Your task to perform on an android device: What is the recent news? Image 0: 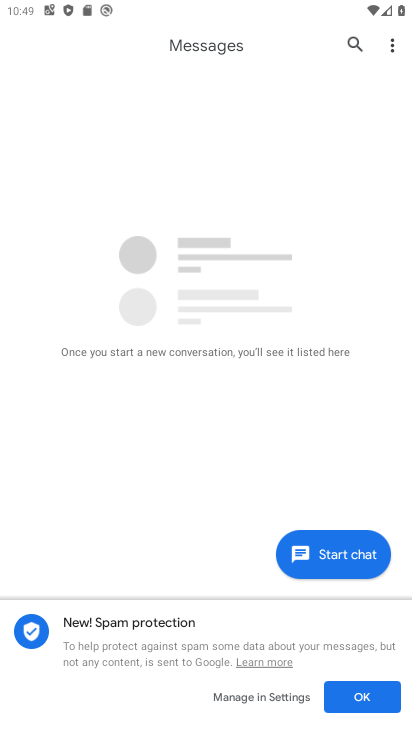
Step 0: press home button
Your task to perform on an android device: What is the recent news? Image 1: 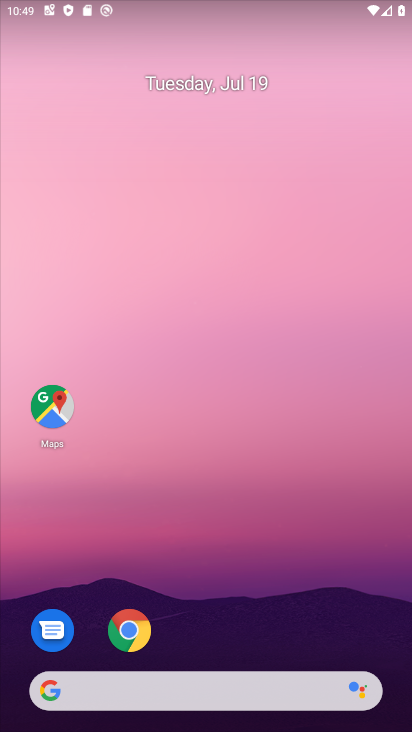
Step 1: click (108, 625)
Your task to perform on an android device: What is the recent news? Image 2: 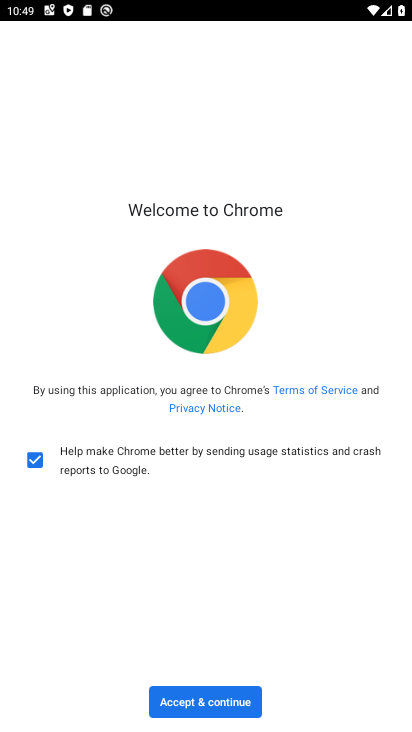
Step 2: click (211, 720)
Your task to perform on an android device: What is the recent news? Image 3: 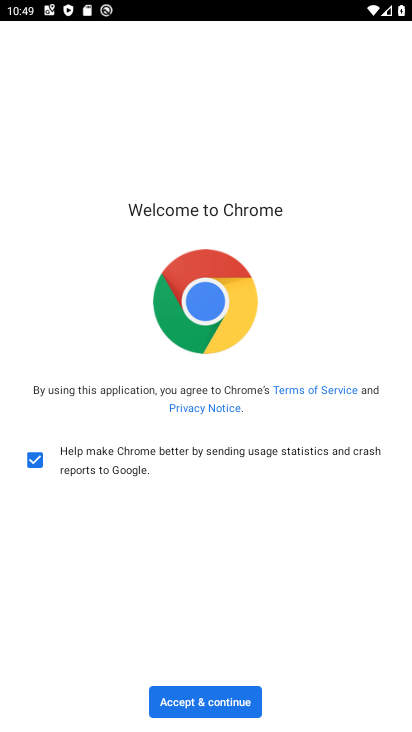
Step 3: click (203, 700)
Your task to perform on an android device: What is the recent news? Image 4: 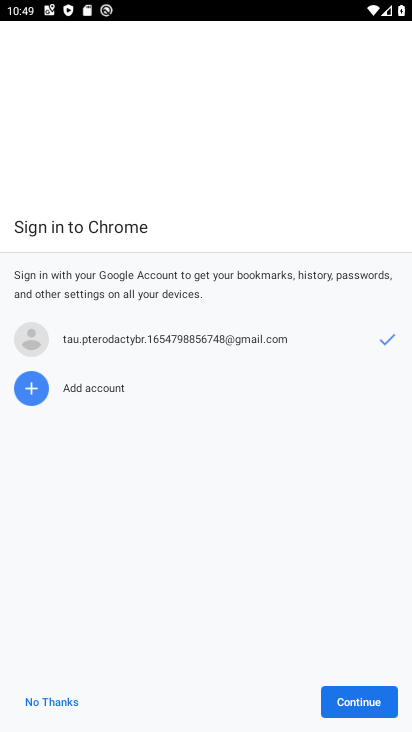
Step 4: click (355, 696)
Your task to perform on an android device: What is the recent news? Image 5: 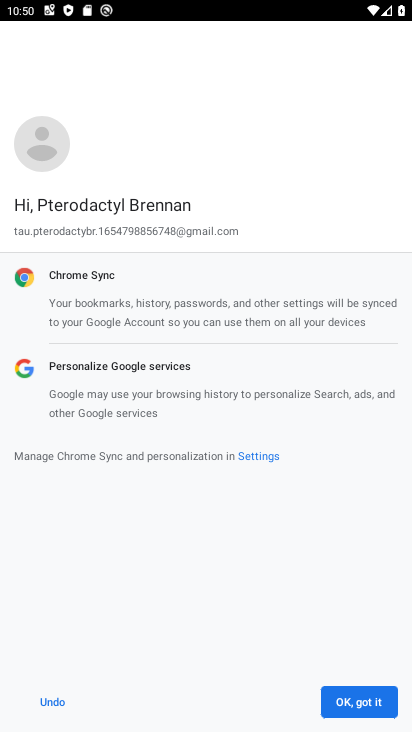
Step 5: click (355, 696)
Your task to perform on an android device: What is the recent news? Image 6: 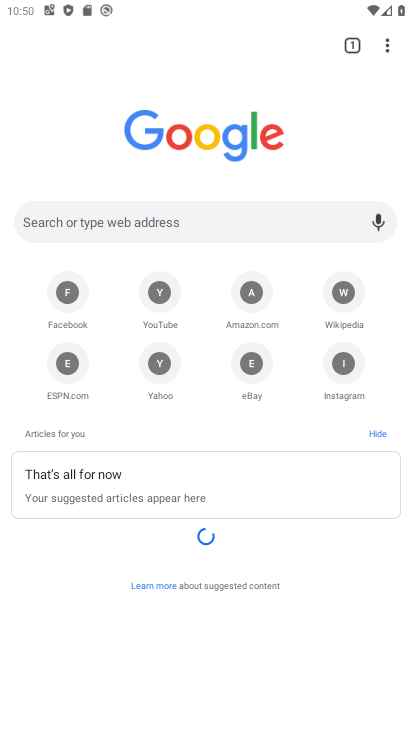
Step 6: click (186, 218)
Your task to perform on an android device: What is the recent news? Image 7: 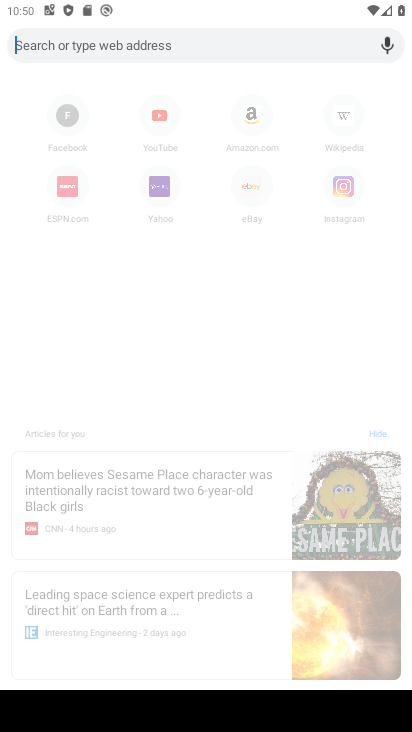
Step 7: type "recent news"
Your task to perform on an android device: What is the recent news? Image 8: 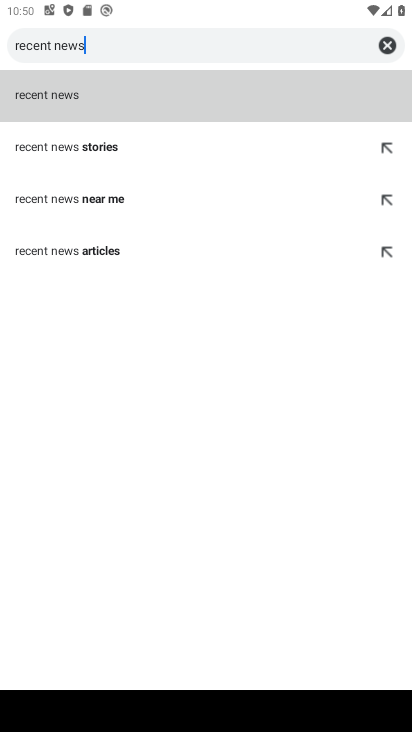
Step 8: click (146, 103)
Your task to perform on an android device: What is the recent news? Image 9: 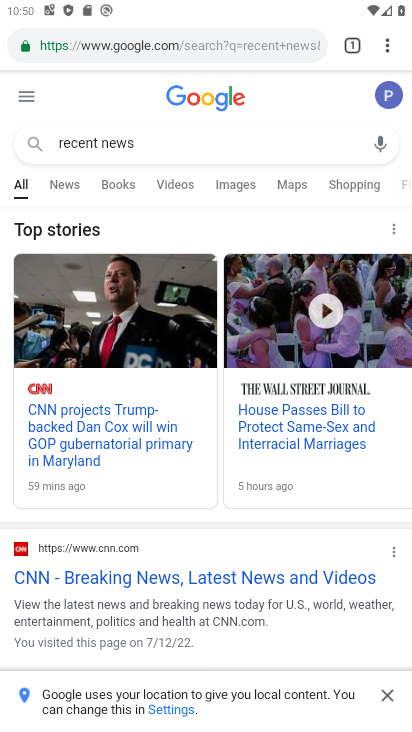
Step 9: task complete